Your task to perform on an android device: Search for usb-b on costco.com, select the first entry, add it to the cart, then select checkout. Image 0: 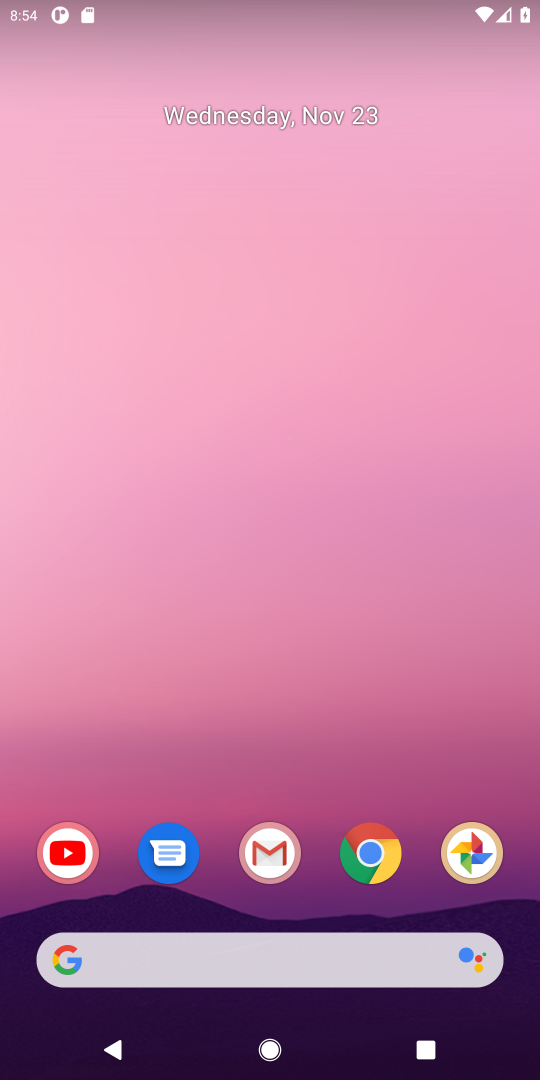
Step 0: click (373, 862)
Your task to perform on an android device: Search for usb-b on costco.com, select the first entry, add it to the cart, then select checkout. Image 1: 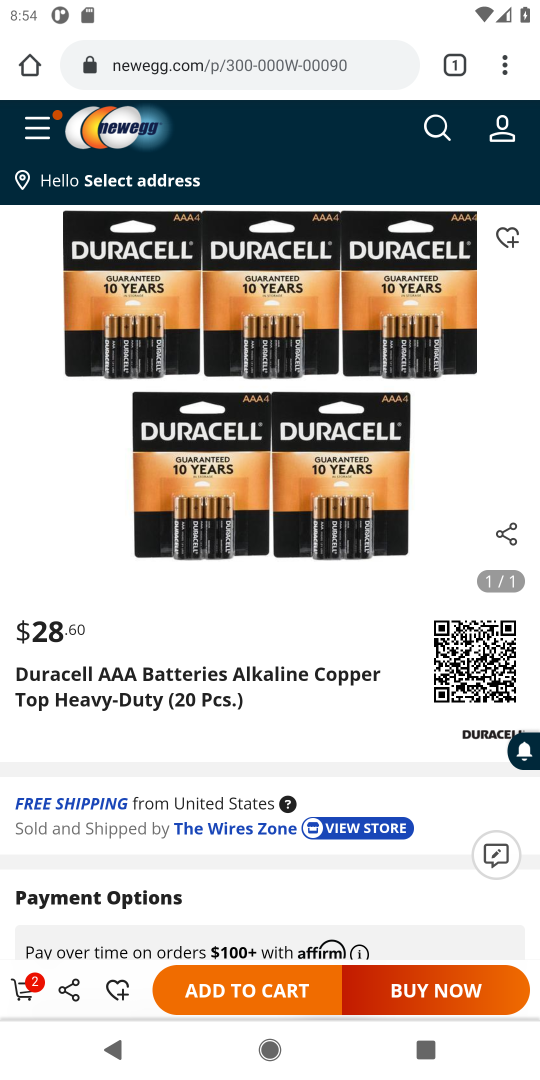
Step 1: click (183, 69)
Your task to perform on an android device: Search for usb-b on costco.com, select the first entry, add it to the cart, then select checkout. Image 2: 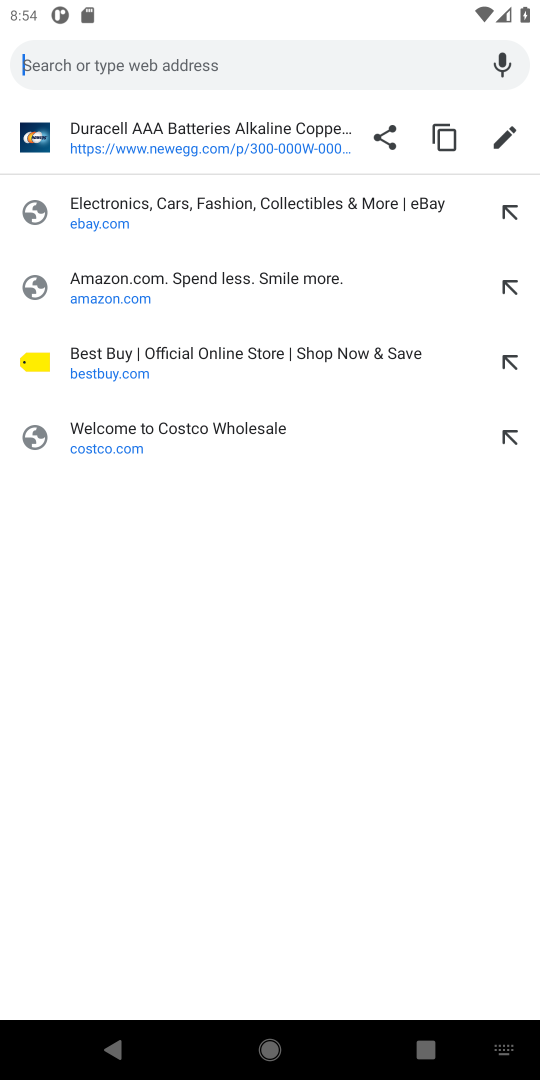
Step 2: click (89, 436)
Your task to perform on an android device: Search for usb-b on costco.com, select the first entry, add it to the cart, then select checkout. Image 3: 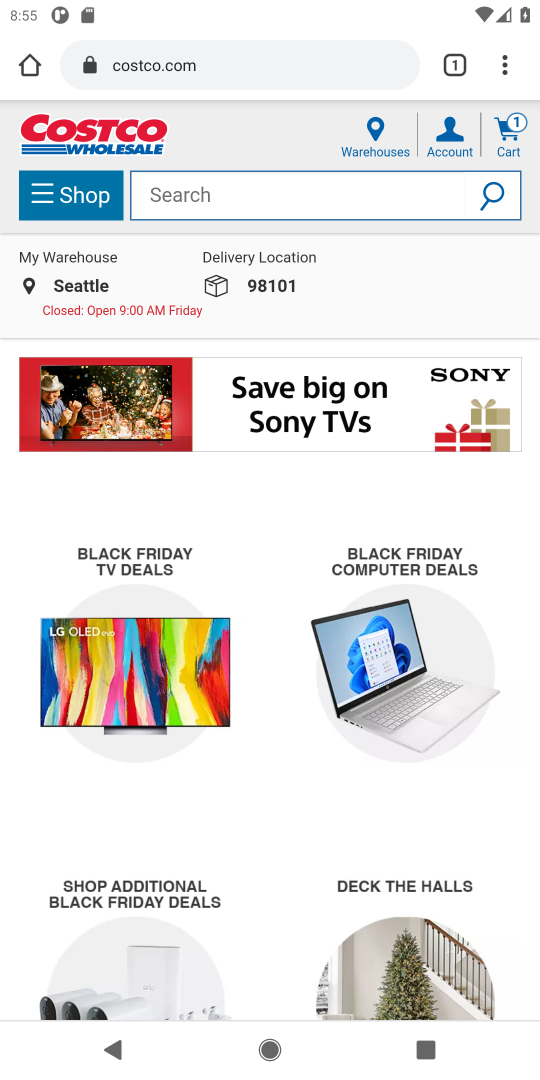
Step 3: click (165, 193)
Your task to perform on an android device: Search for usb-b on costco.com, select the first entry, add it to the cart, then select checkout. Image 4: 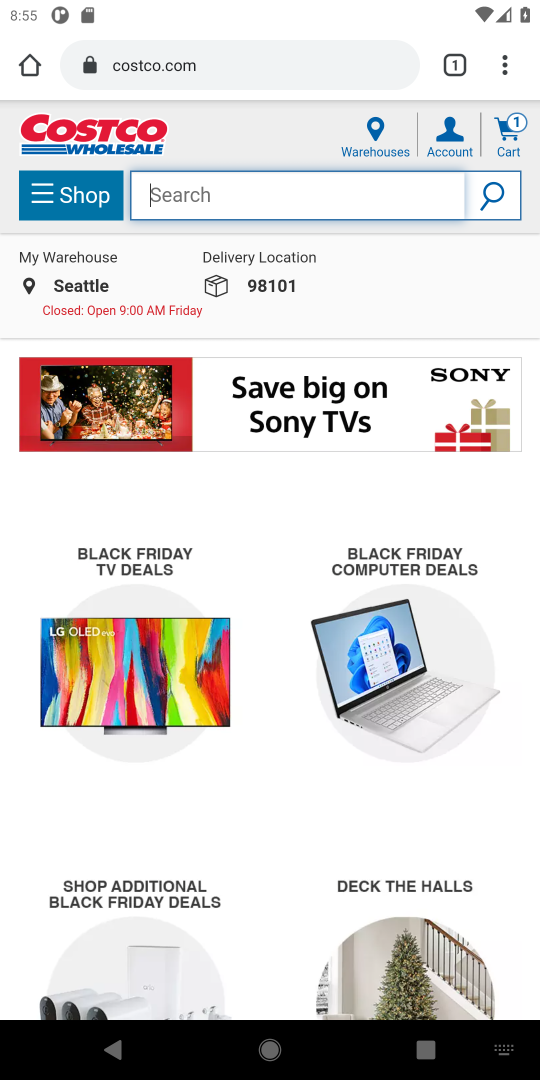
Step 4: type "usb-b"
Your task to perform on an android device: Search for usb-b on costco.com, select the first entry, add it to the cart, then select checkout. Image 5: 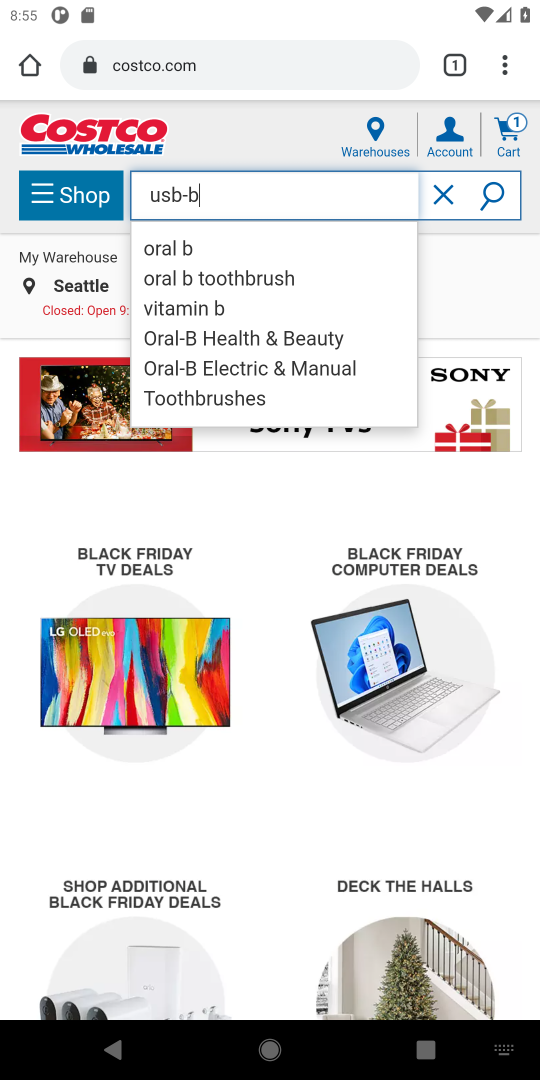
Step 5: click (499, 193)
Your task to perform on an android device: Search for usb-b on costco.com, select the first entry, add it to the cart, then select checkout. Image 6: 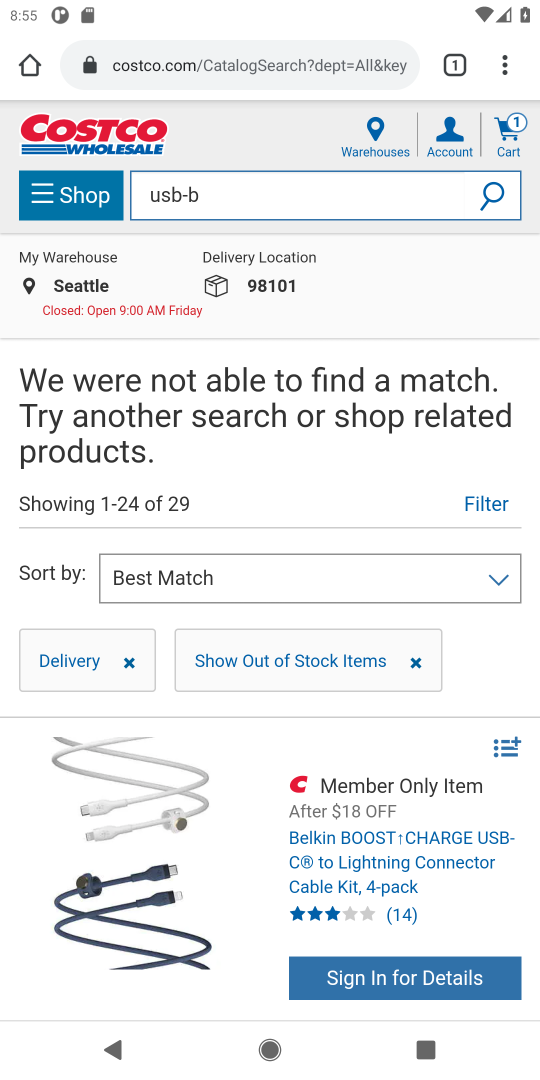
Step 6: task complete